Your task to perform on an android device: make emails show in primary in the gmail app Image 0: 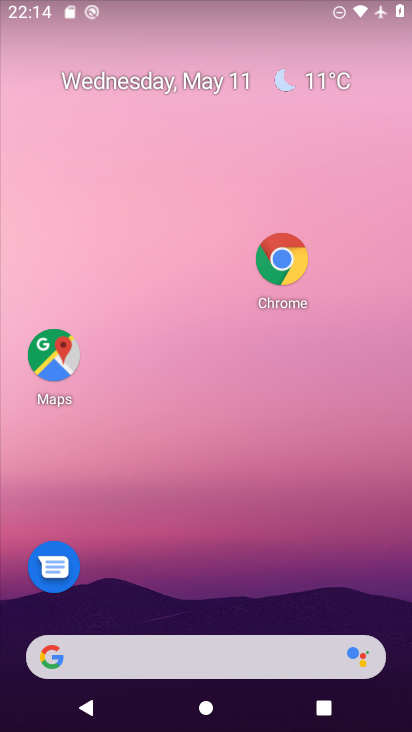
Step 0: drag from (164, 655) to (333, 0)
Your task to perform on an android device: make emails show in primary in the gmail app Image 1: 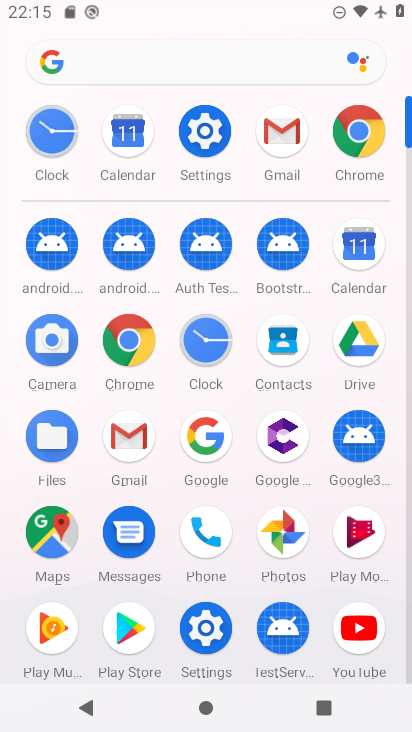
Step 1: click (292, 146)
Your task to perform on an android device: make emails show in primary in the gmail app Image 2: 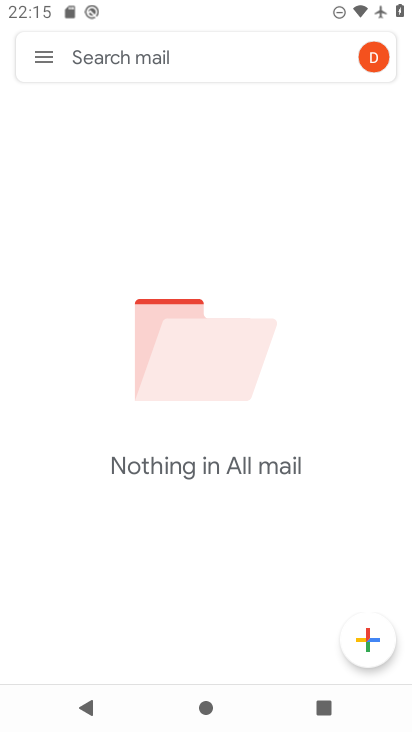
Step 2: click (45, 54)
Your task to perform on an android device: make emails show in primary in the gmail app Image 3: 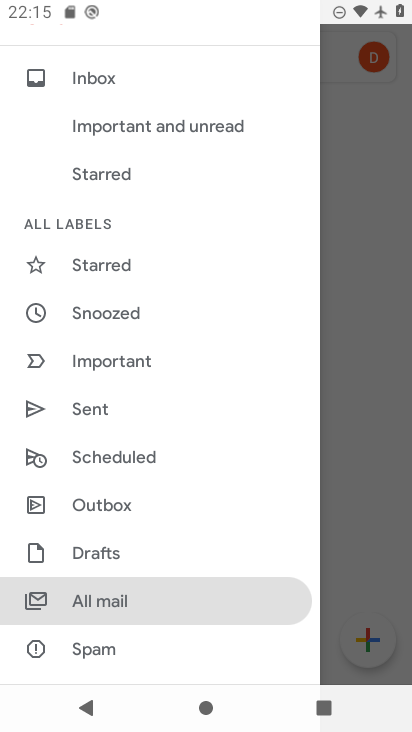
Step 3: drag from (133, 631) to (261, 248)
Your task to perform on an android device: make emails show in primary in the gmail app Image 4: 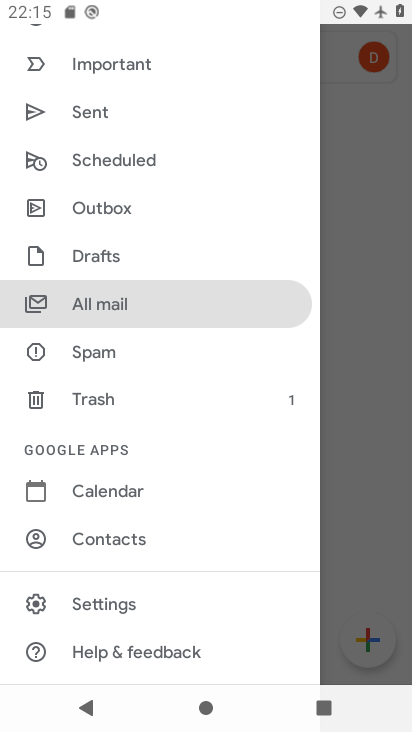
Step 4: click (113, 602)
Your task to perform on an android device: make emails show in primary in the gmail app Image 5: 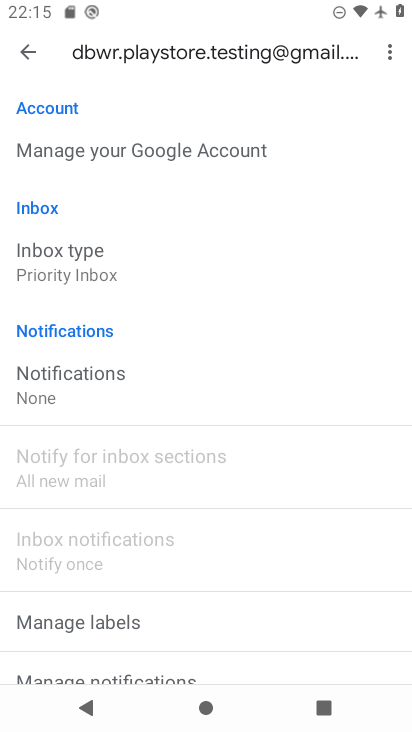
Step 5: task complete